Your task to perform on an android device: Open display settings Image 0: 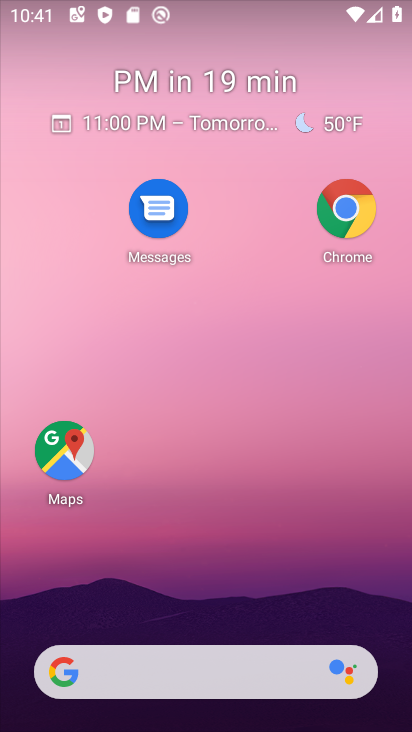
Step 0: drag from (228, 630) to (134, 0)
Your task to perform on an android device: Open display settings Image 1: 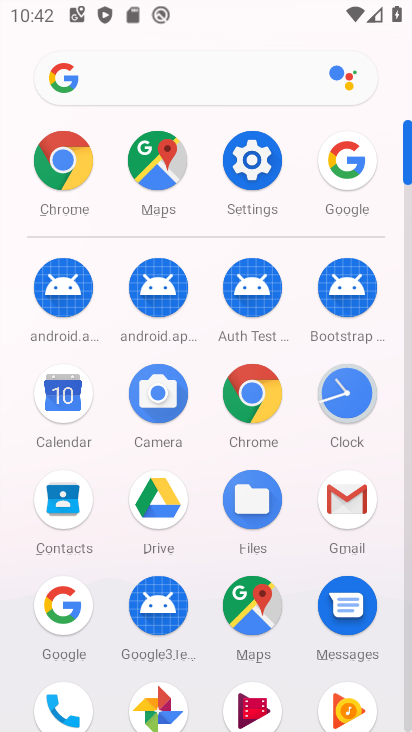
Step 1: click (240, 160)
Your task to perform on an android device: Open display settings Image 2: 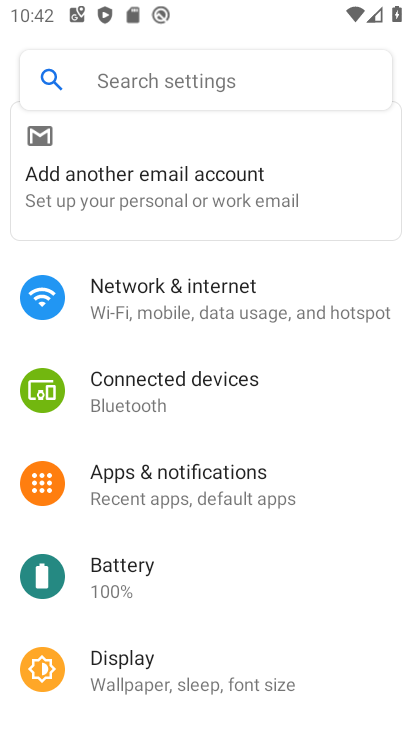
Step 2: click (125, 666)
Your task to perform on an android device: Open display settings Image 3: 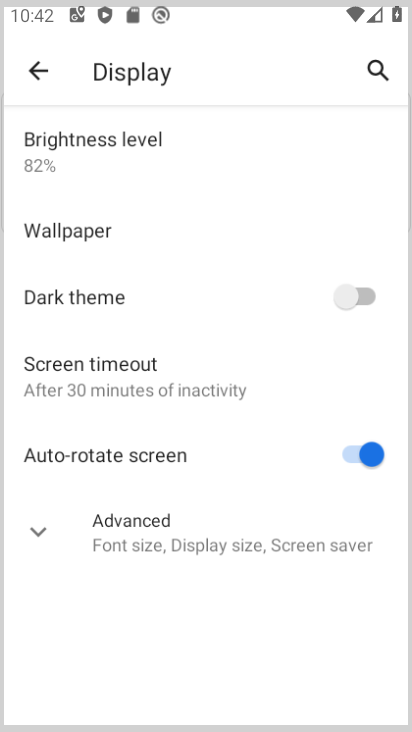
Step 3: drag from (125, 666) to (130, 388)
Your task to perform on an android device: Open display settings Image 4: 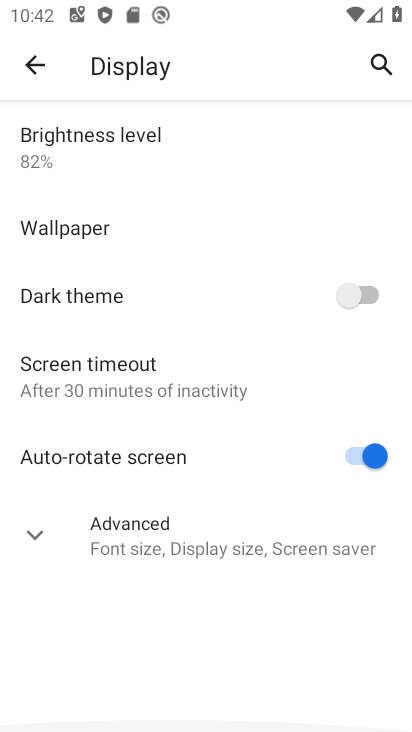
Step 4: click (138, 520)
Your task to perform on an android device: Open display settings Image 5: 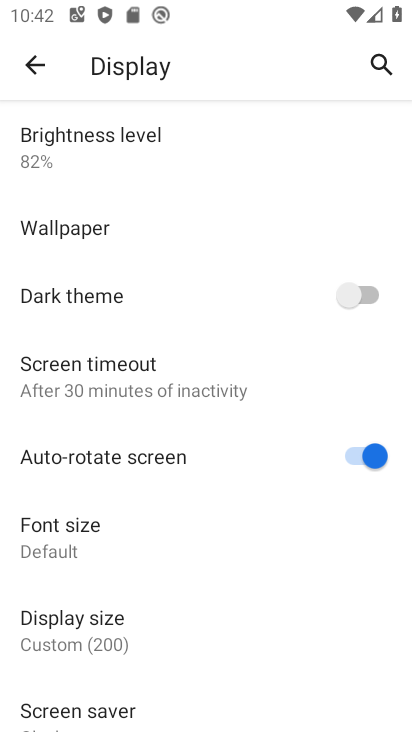
Step 5: task complete